Your task to perform on an android device: turn on bluetooth scan Image 0: 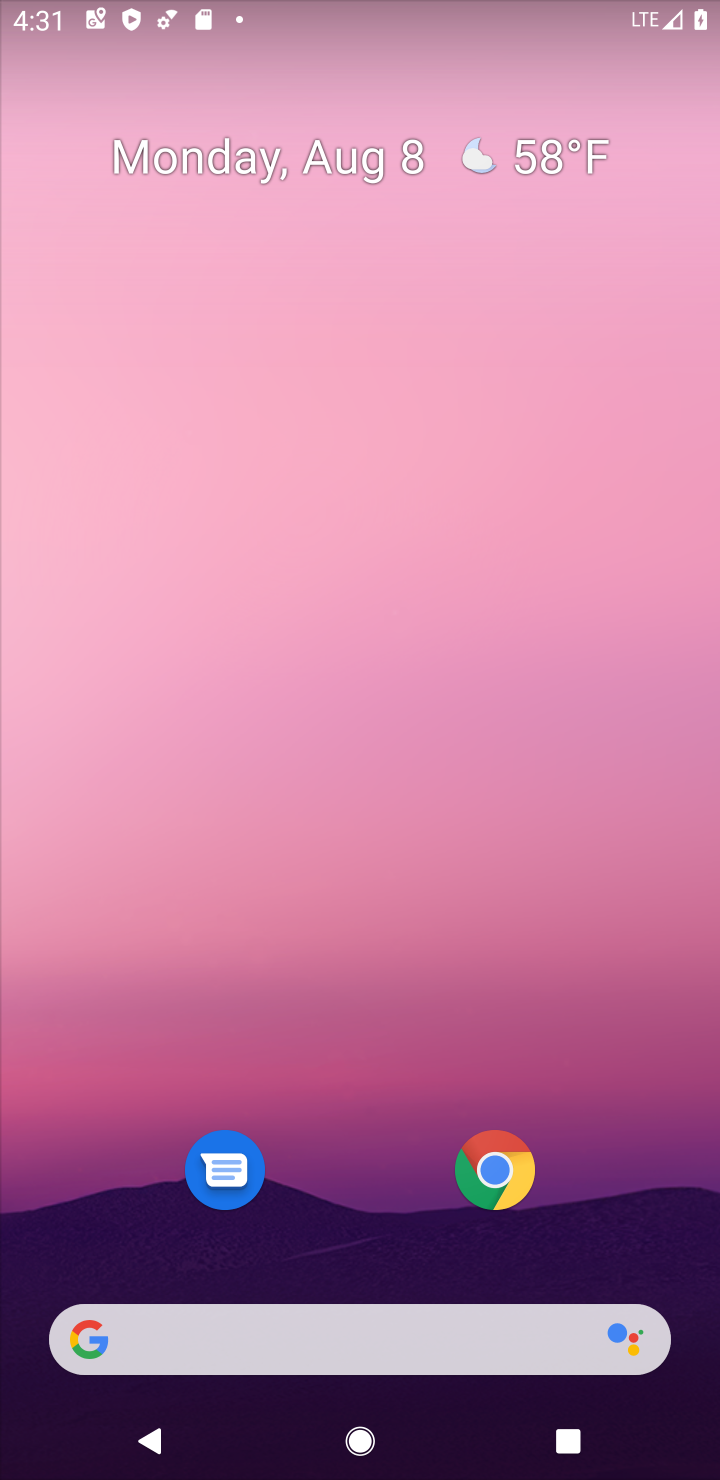
Step 0: click (399, 288)
Your task to perform on an android device: turn on bluetooth scan Image 1: 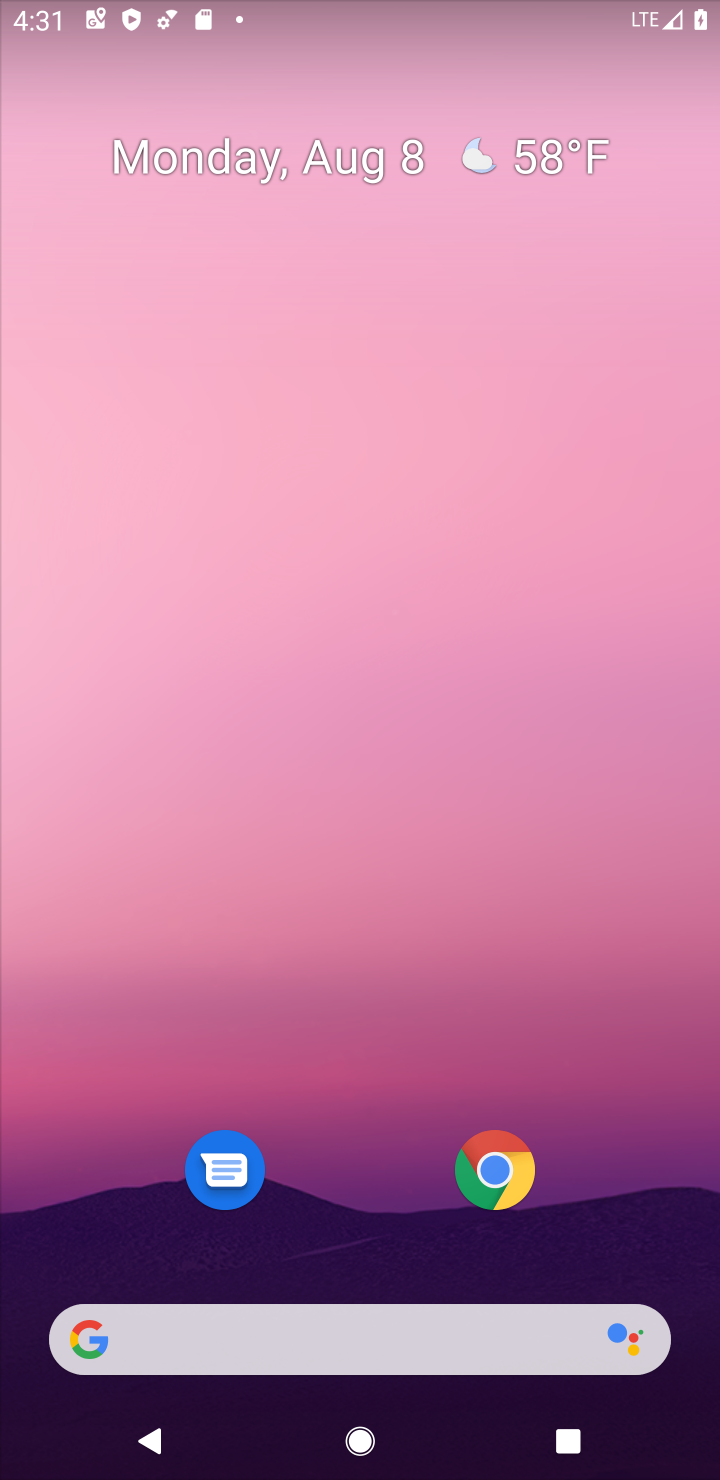
Step 1: drag from (362, 1164) to (362, 475)
Your task to perform on an android device: turn on bluetooth scan Image 2: 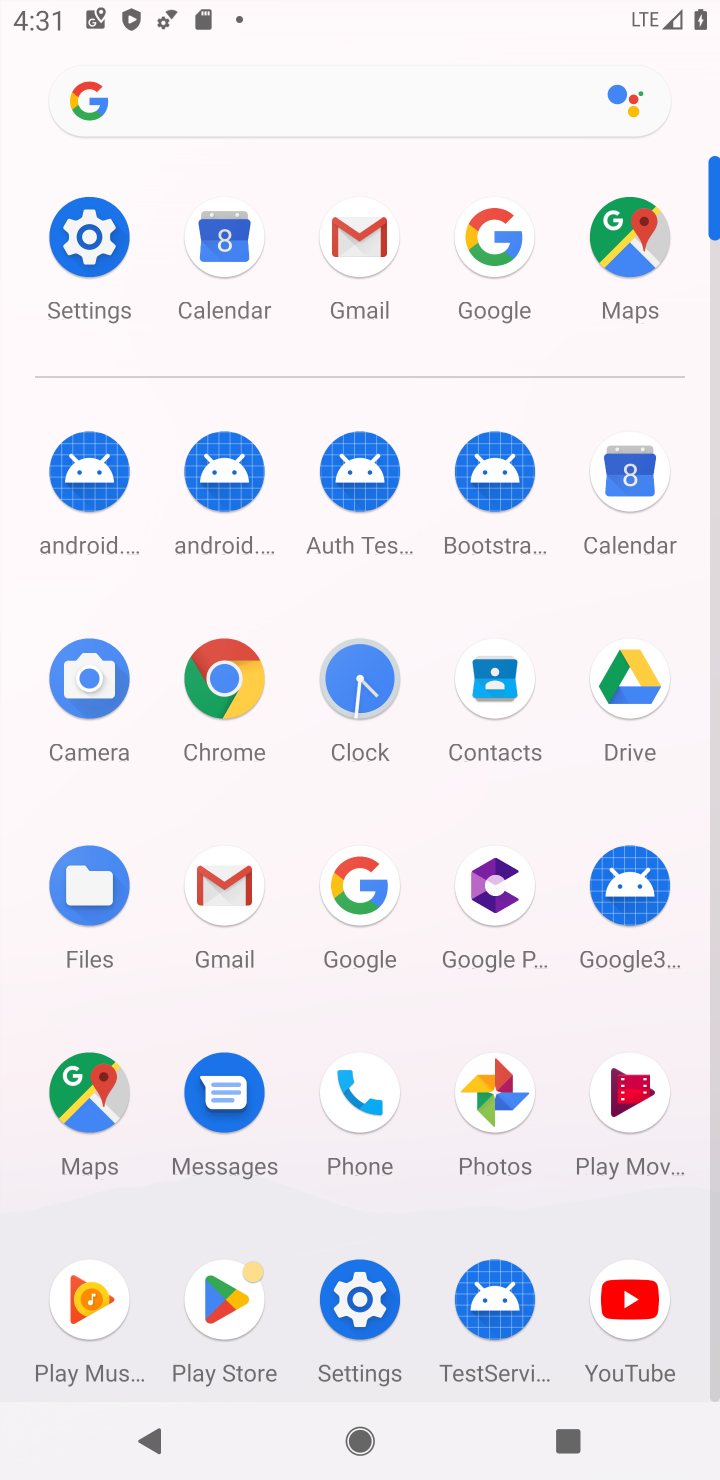
Step 2: click (124, 264)
Your task to perform on an android device: turn on bluetooth scan Image 3: 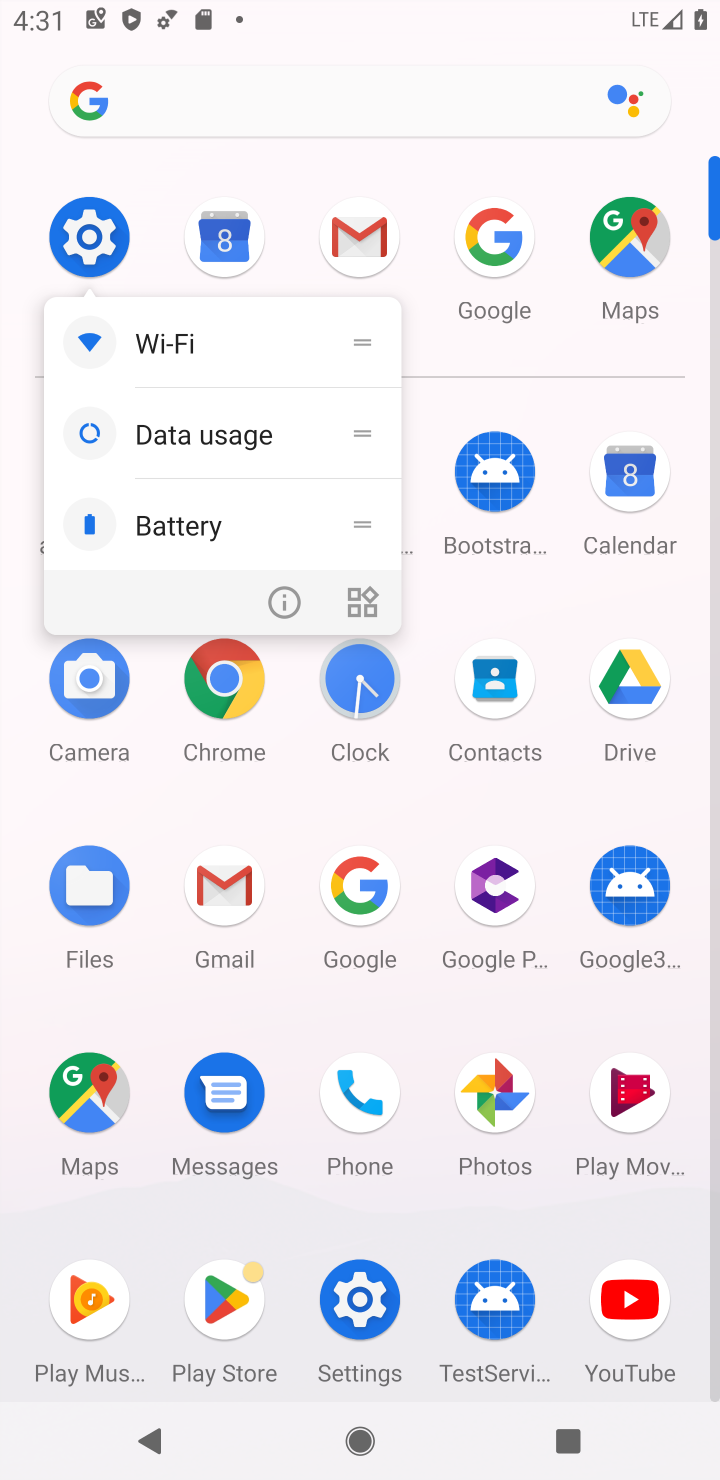
Step 3: click (98, 249)
Your task to perform on an android device: turn on bluetooth scan Image 4: 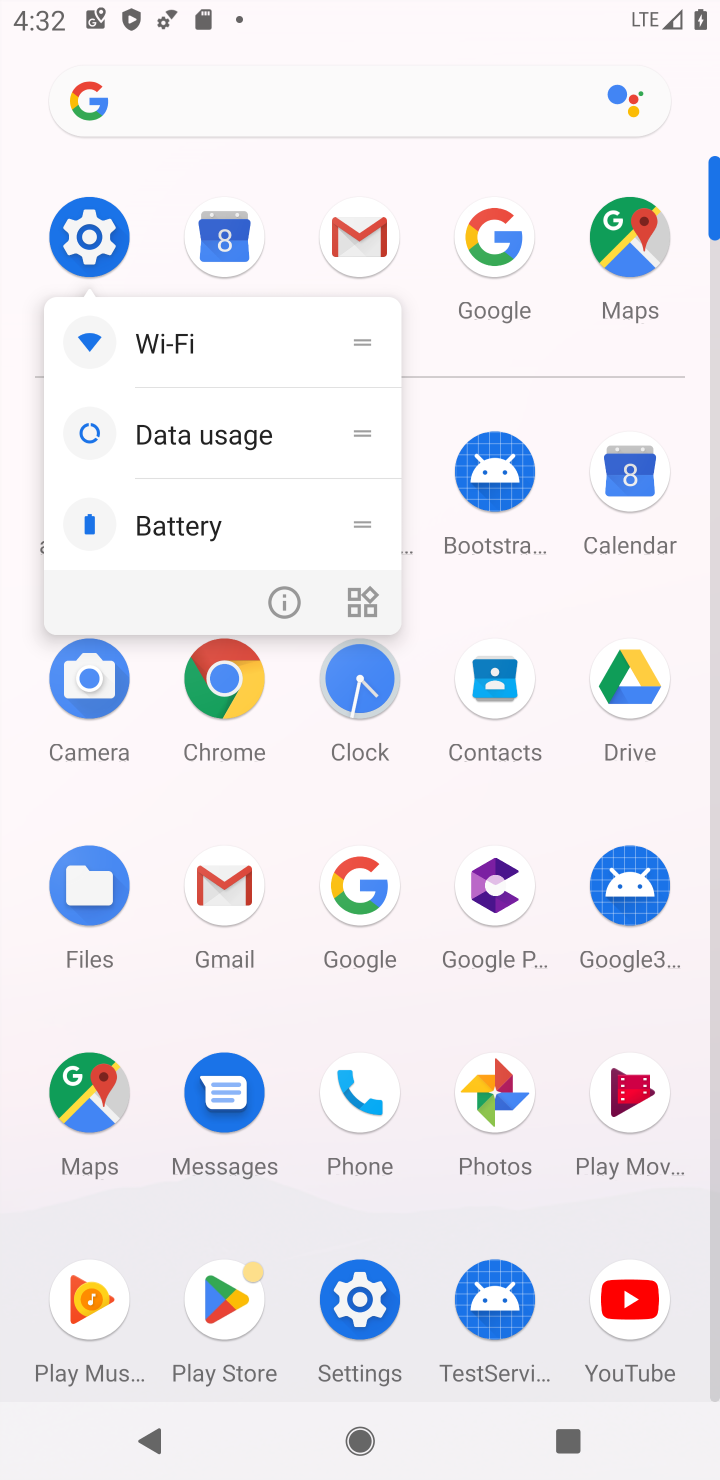
Step 4: click (98, 249)
Your task to perform on an android device: turn on bluetooth scan Image 5: 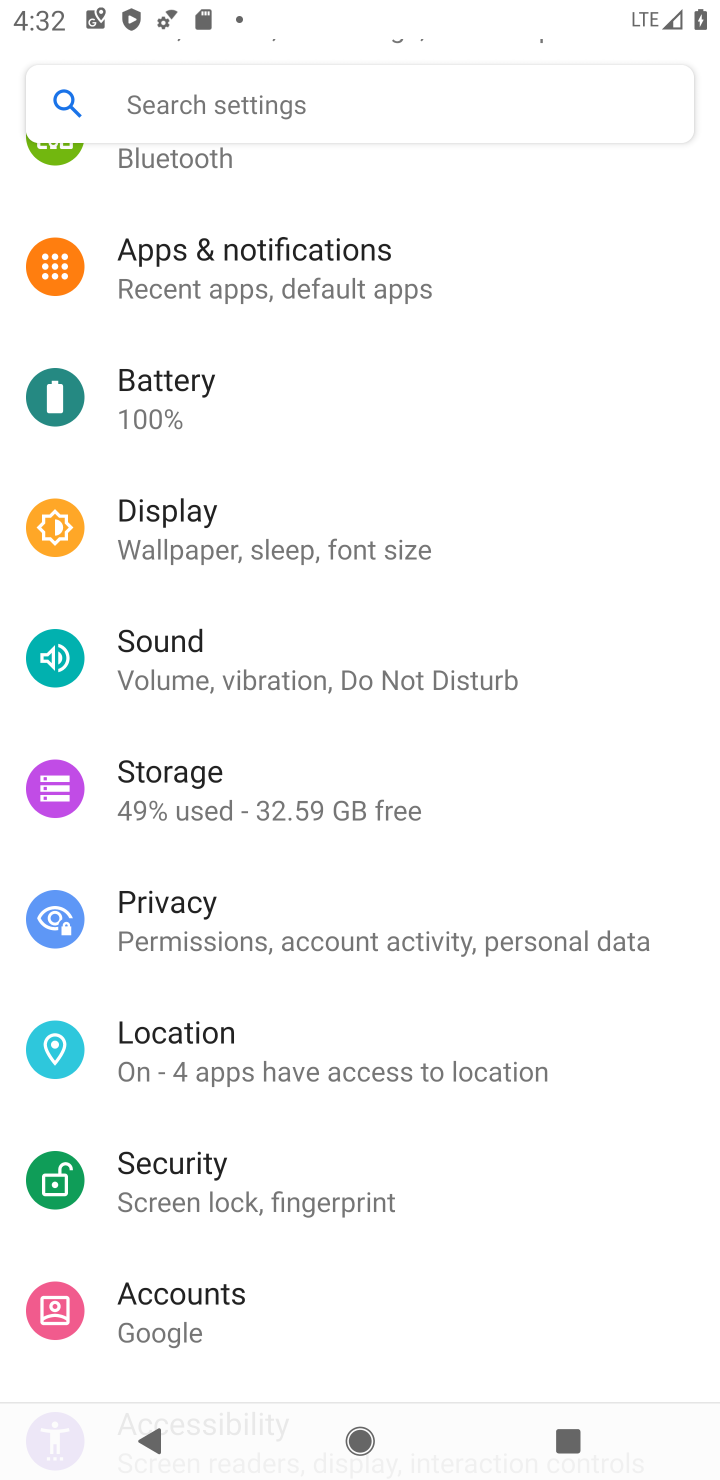
Step 5: click (184, 1071)
Your task to perform on an android device: turn on bluetooth scan Image 6: 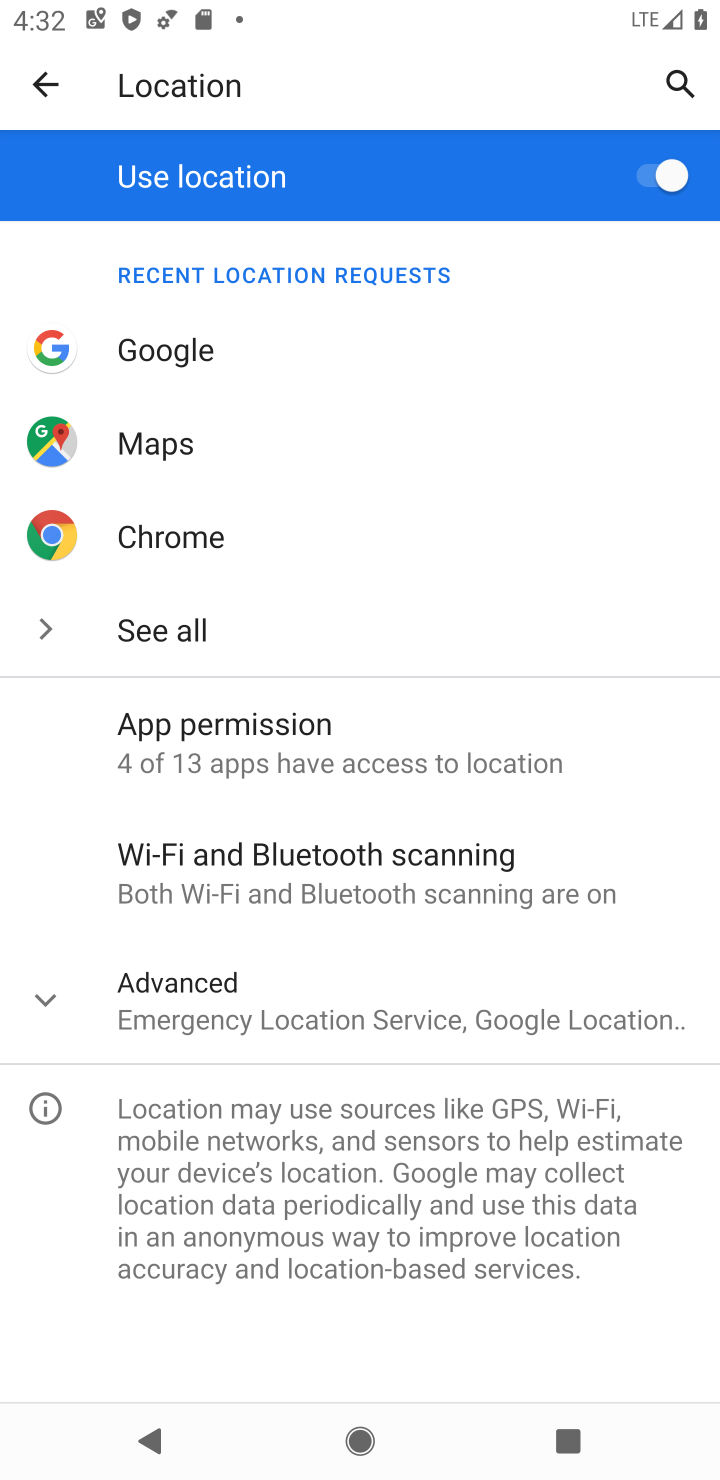
Step 6: click (348, 894)
Your task to perform on an android device: turn on bluetooth scan Image 7: 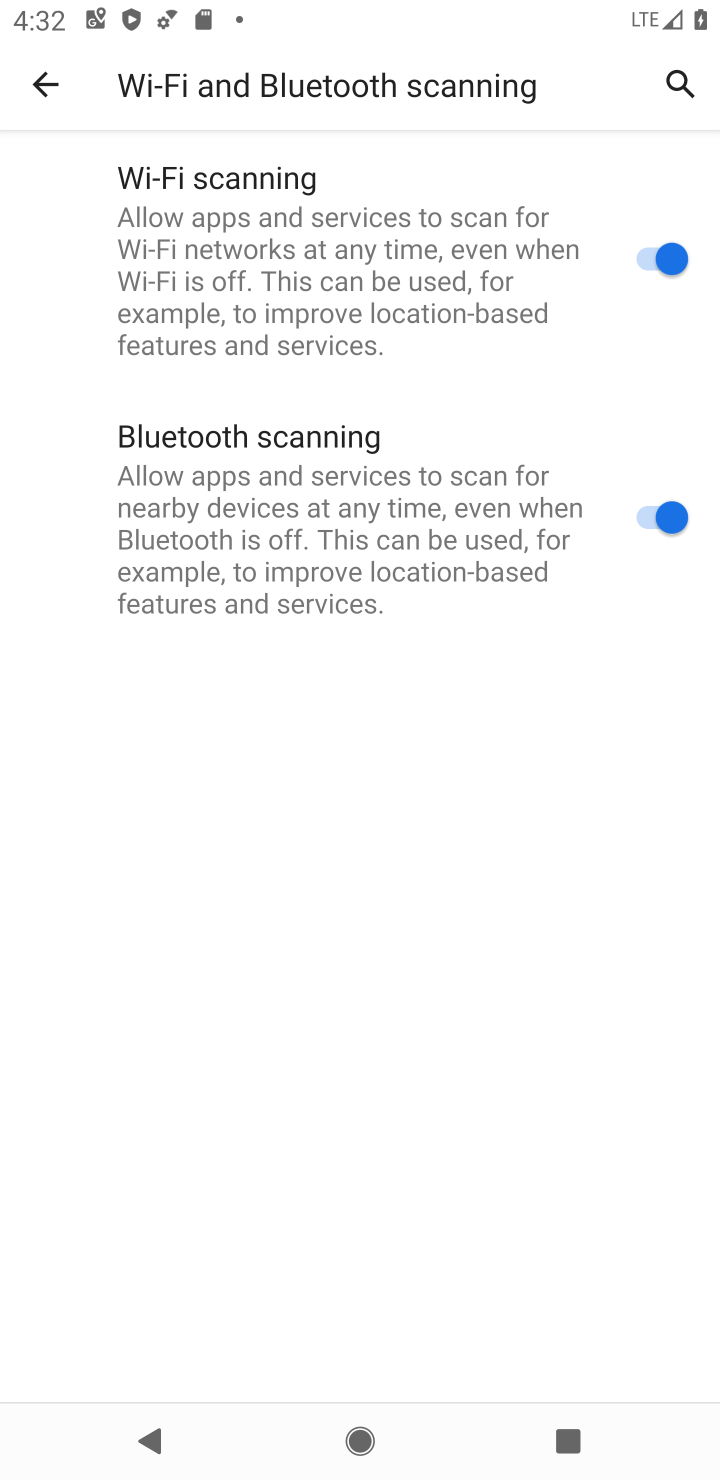
Step 7: task complete